Your task to perform on an android device: turn off location Image 0: 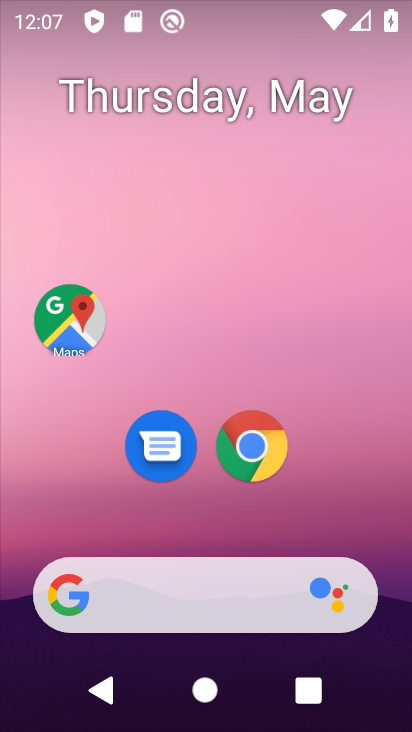
Step 0: drag from (305, 387) to (347, 3)
Your task to perform on an android device: turn off location Image 1: 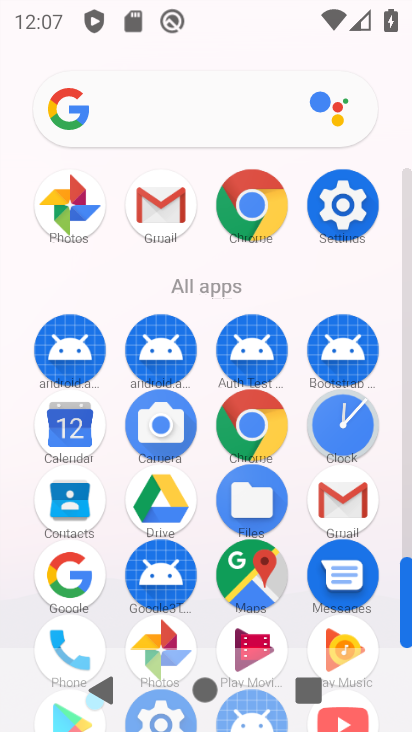
Step 1: click (347, 198)
Your task to perform on an android device: turn off location Image 2: 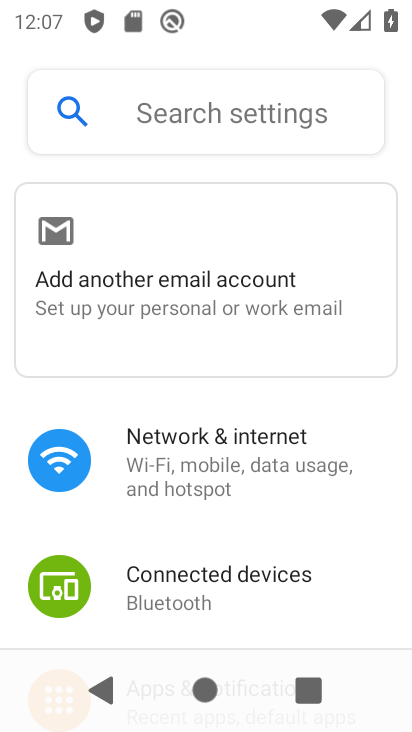
Step 2: drag from (268, 574) to (347, 78)
Your task to perform on an android device: turn off location Image 3: 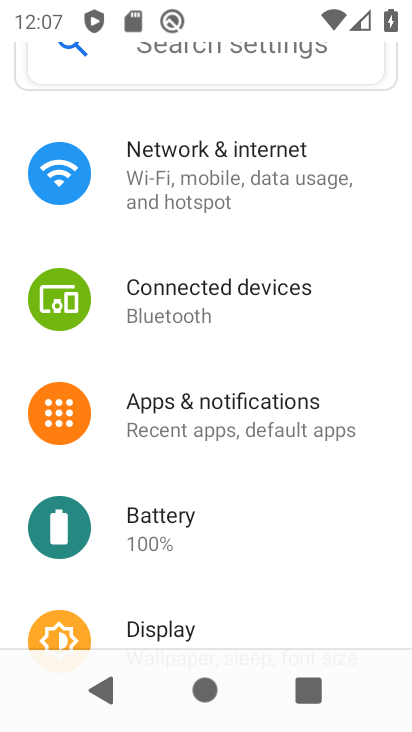
Step 3: drag from (323, 440) to (297, 17)
Your task to perform on an android device: turn off location Image 4: 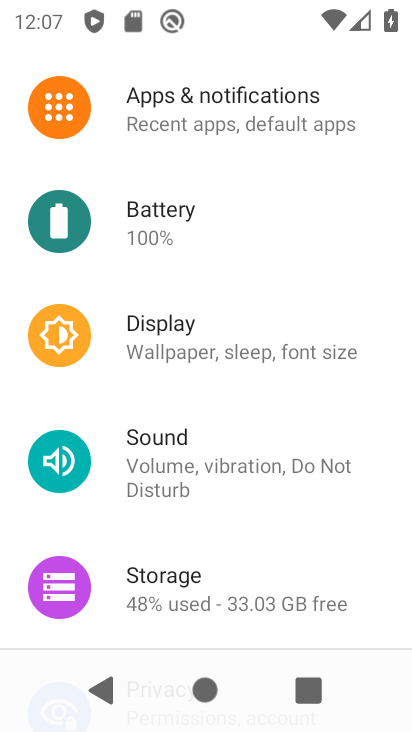
Step 4: drag from (298, 338) to (273, 59)
Your task to perform on an android device: turn off location Image 5: 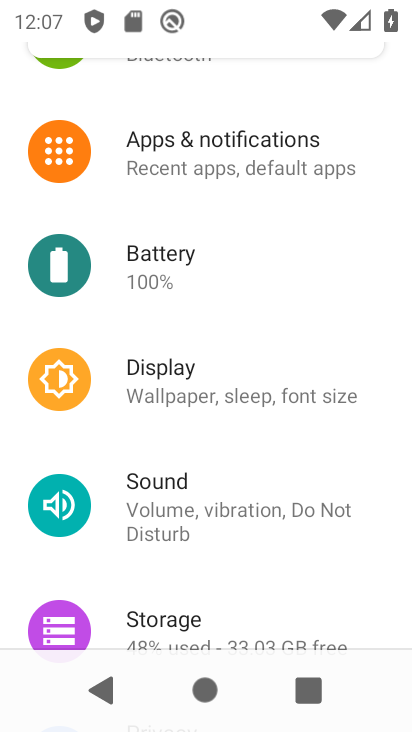
Step 5: drag from (279, 436) to (289, 23)
Your task to perform on an android device: turn off location Image 6: 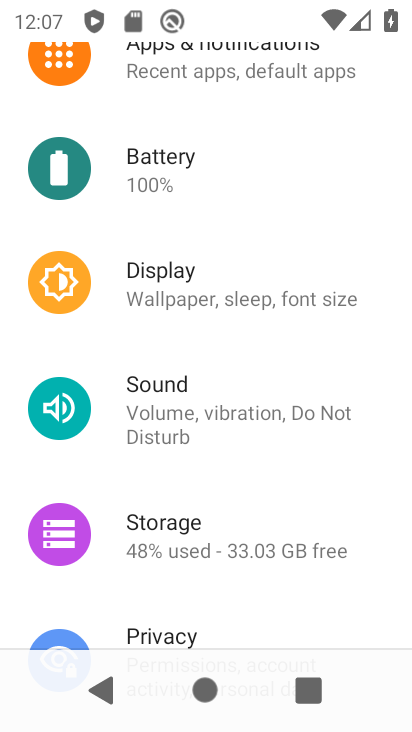
Step 6: drag from (328, 386) to (282, 0)
Your task to perform on an android device: turn off location Image 7: 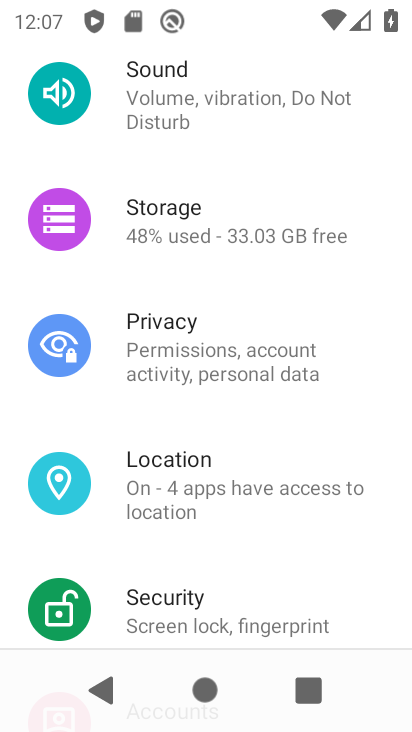
Step 7: drag from (242, 527) to (236, 56)
Your task to perform on an android device: turn off location Image 8: 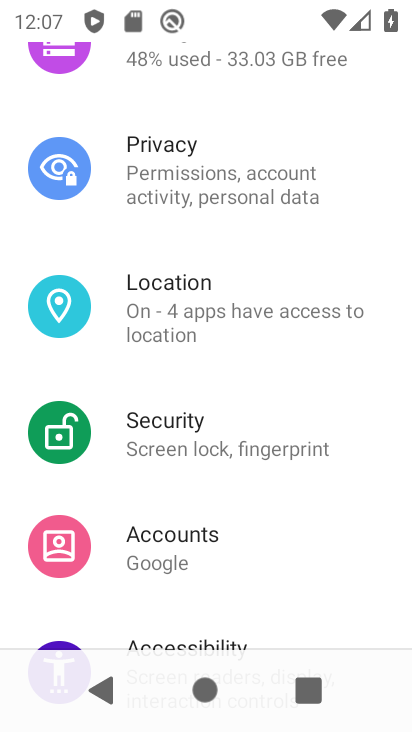
Step 8: click (224, 305)
Your task to perform on an android device: turn off location Image 9: 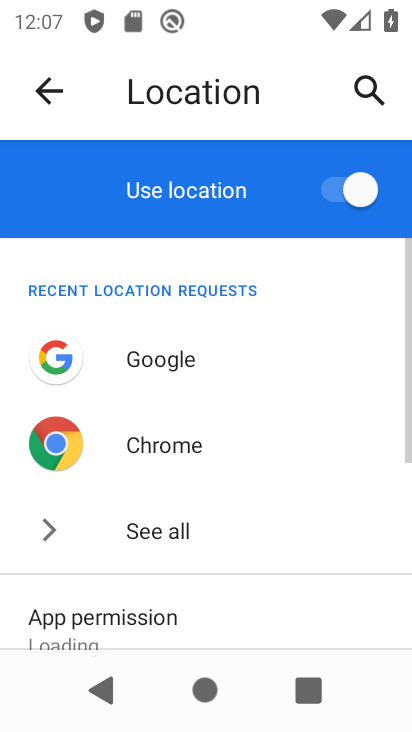
Step 9: click (338, 207)
Your task to perform on an android device: turn off location Image 10: 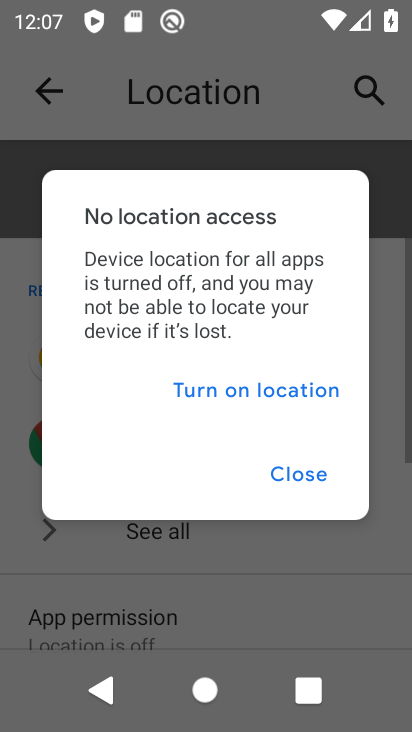
Step 10: task complete